Your task to perform on an android device: Is it going to rain tomorrow? Image 0: 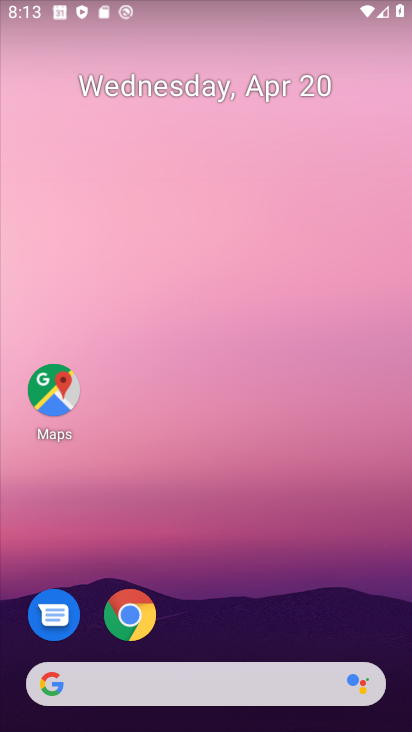
Step 0: drag from (218, 613) to (350, 60)
Your task to perform on an android device: Is it going to rain tomorrow? Image 1: 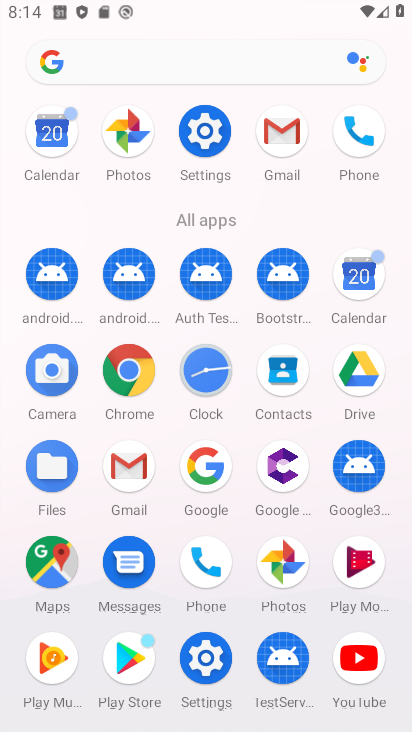
Step 1: click (211, 469)
Your task to perform on an android device: Is it going to rain tomorrow? Image 2: 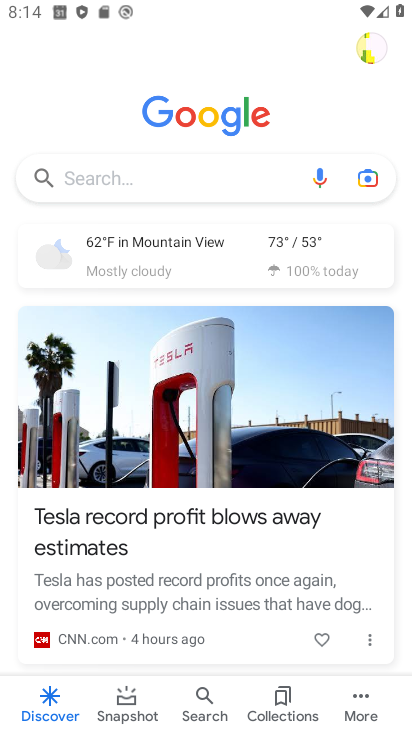
Step 2: click (205, 177)
Your task to perform on an android device: Is it going to rain tomorrow? Image 3: 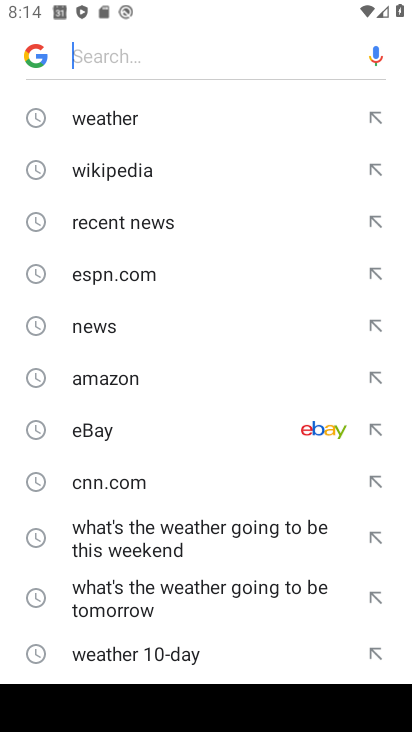
Step 3: click (240, 586)
Your task to perform on an android device: Is it going to rain tomorrow? Image 4: 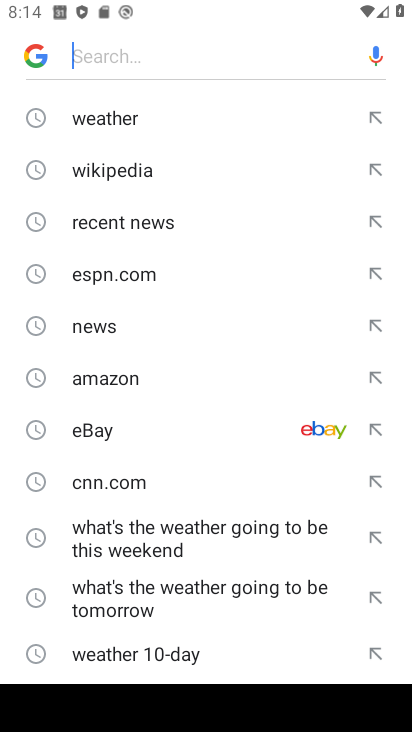
Step 4: click (240, 586)
Your task to perform on an android device: Is it going to rain tomorrow? Image 5: 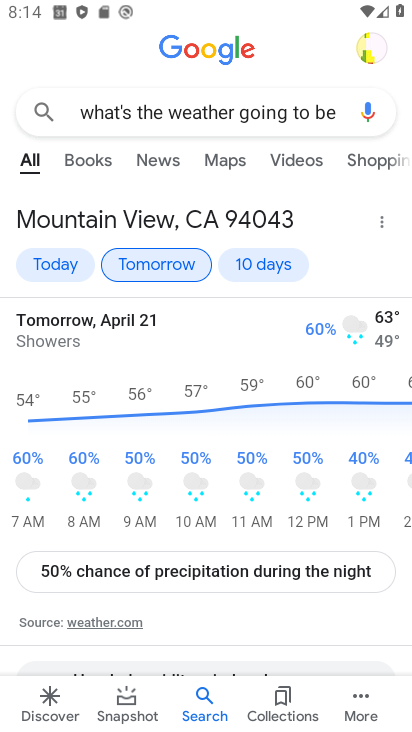
Step 5: task complete